Your task to perform on an android device: turn on wifi Image 0: 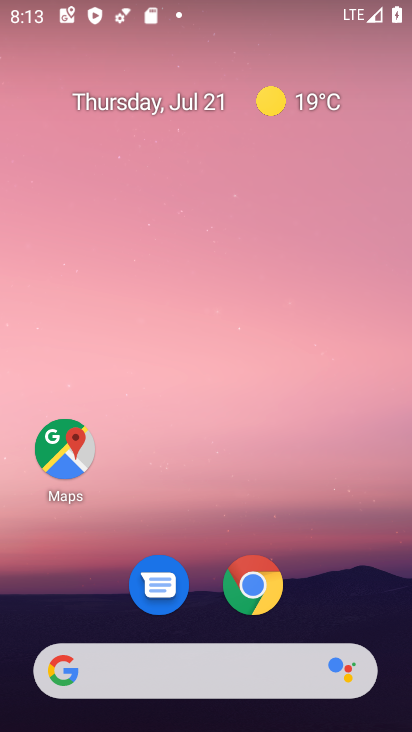
Step 0: drag from (336, 583) to (319, 115)
Your task to perform on an android device: turn on wifi Image 1: 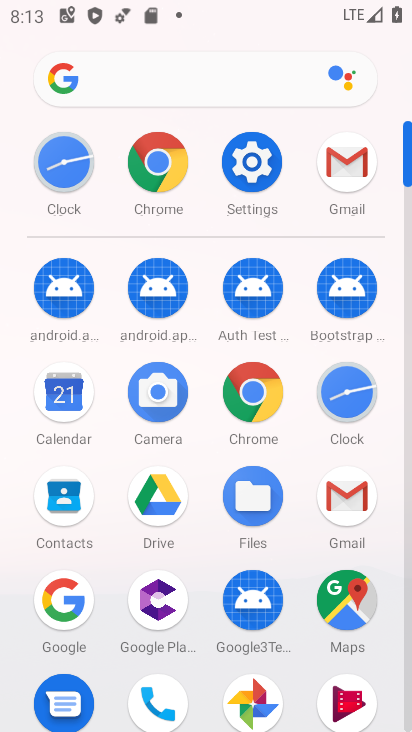
Step 1: click (268, 173)
Your task to perform on an android device: turn on wifi Image 2: 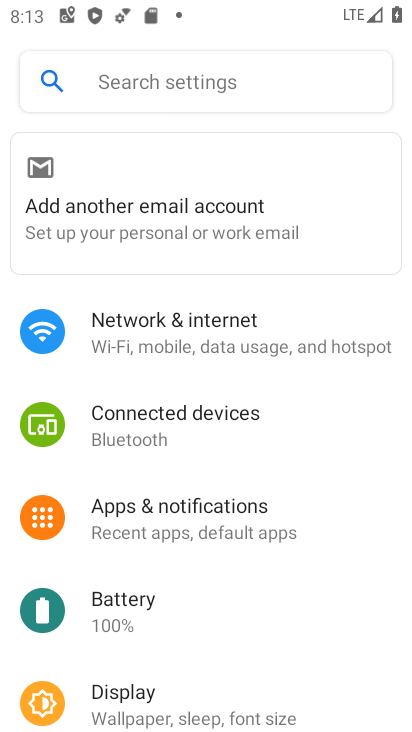
Step 2: click (237, 336)
Your task to perform on an android device: turn on wifi Image 3: 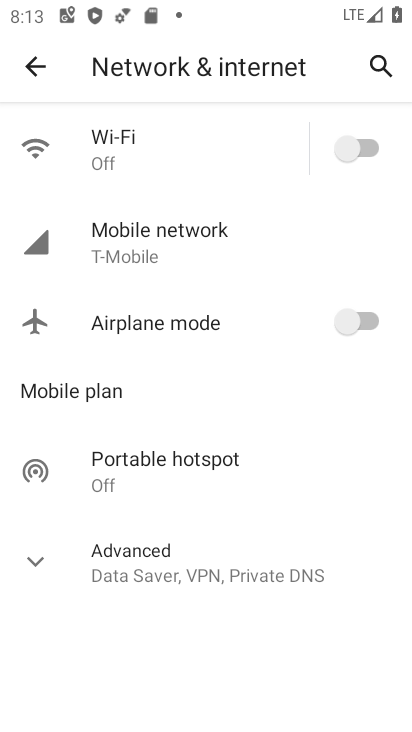
Step 3: click (369, 148)
Your task to perform on an android device: turn on wifi Image 4: 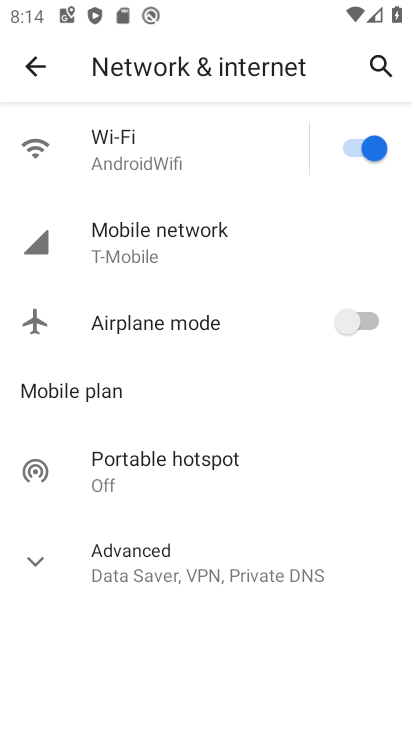
Step 4: task complete